Your task to perform on an android device: Open Google Maps Image 0: 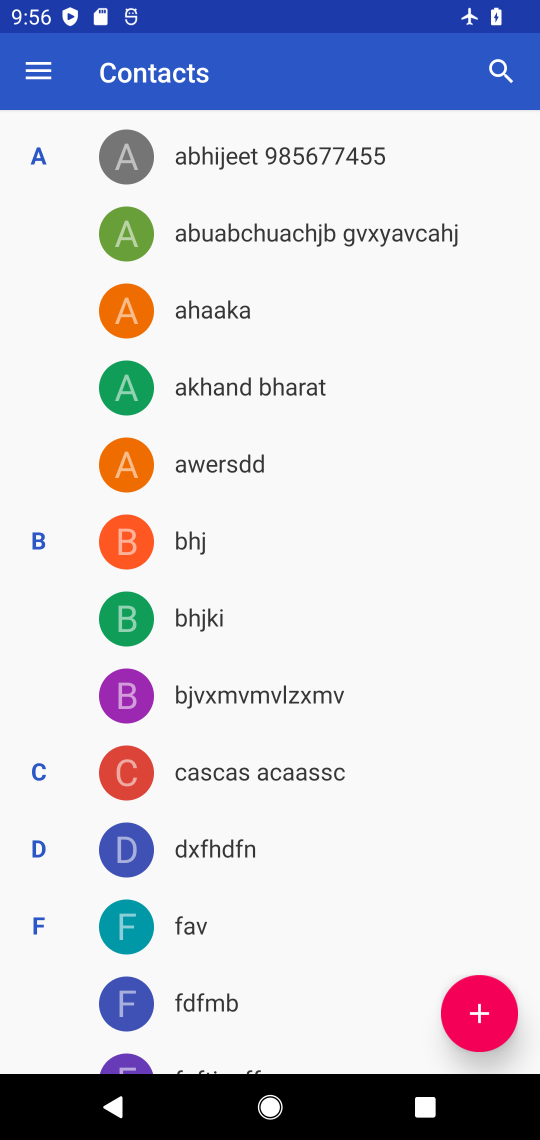
Step 0: press home button
Your task to perform on an android device: Open Google Maps Image 1: 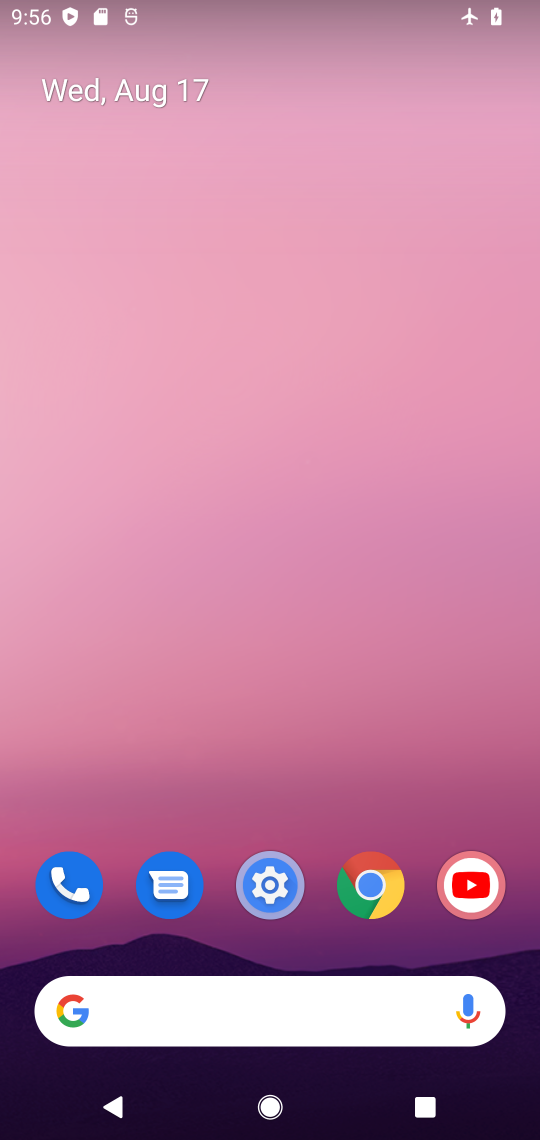
Step 1: drag from (414, 944) to (399, 146)
Your task to perform on an android device: Open Google Maps Image 2: 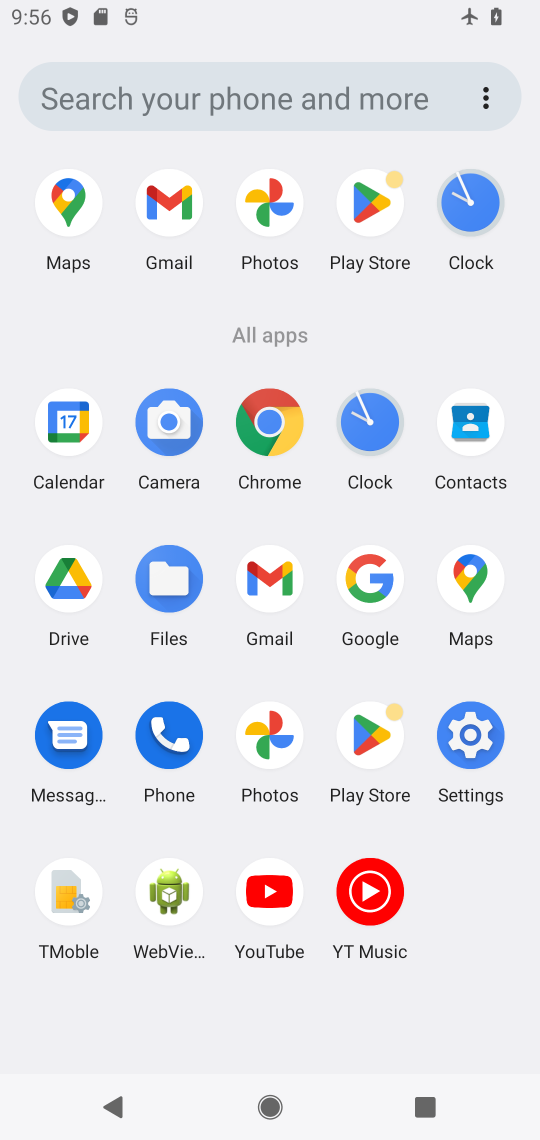
Step 2: click (467, 571)
Your task to perform on an android device: Open Google Maps Image 3: 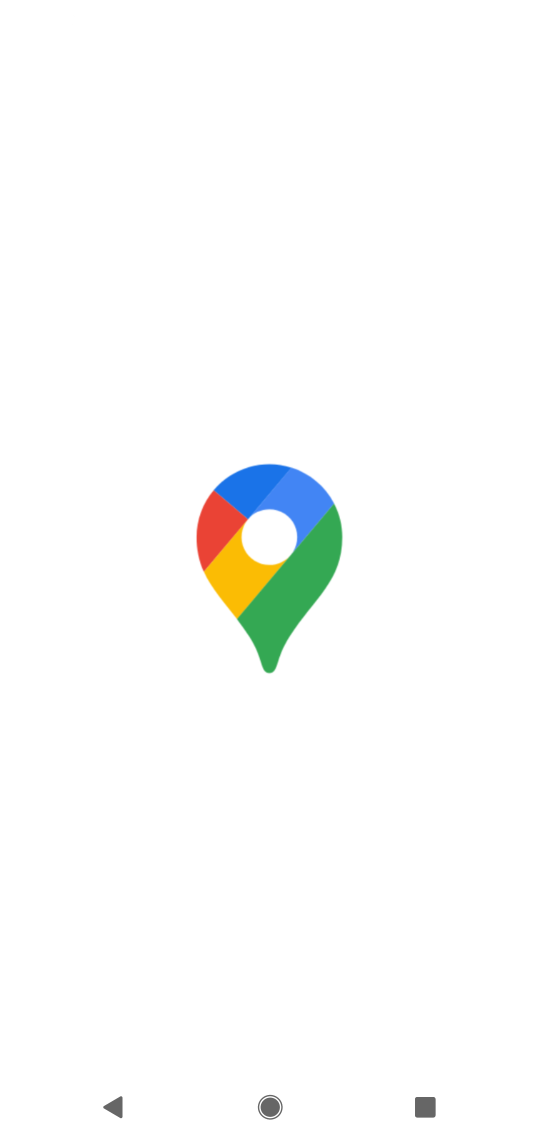
Step 3: task complete